Your task to perform on an android device: turn off notifications in google photos Image 0: 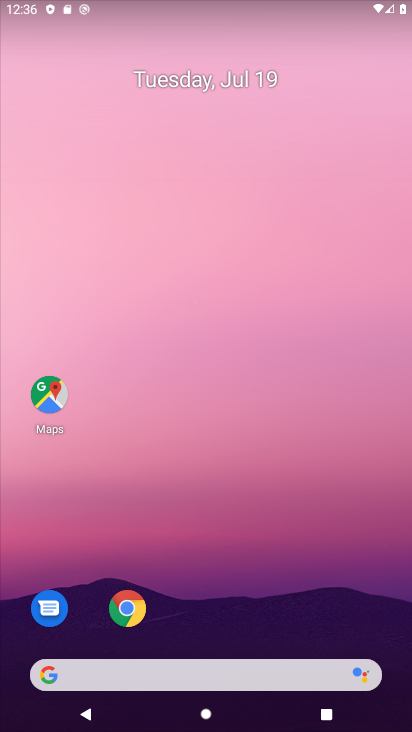
Step 0: drag from (255, 554) to (236, 260)
Your task to perform on an android device: turn off notifications in google photos Image 1: 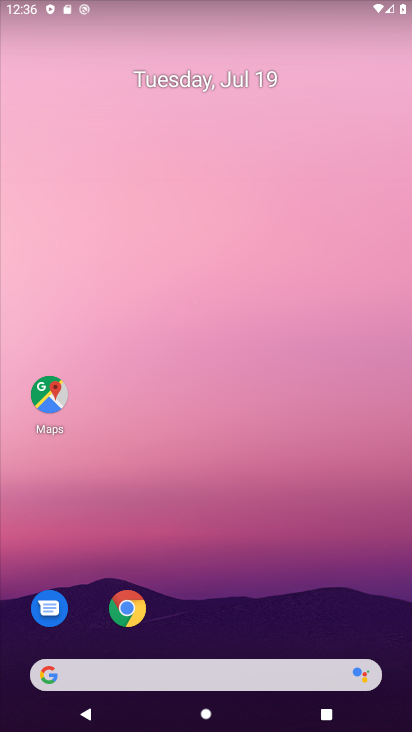
Step 1: drag from (234, 576) to (180, 161)
Your task to perform on an android device: turn off notifications in google photos Image 2: 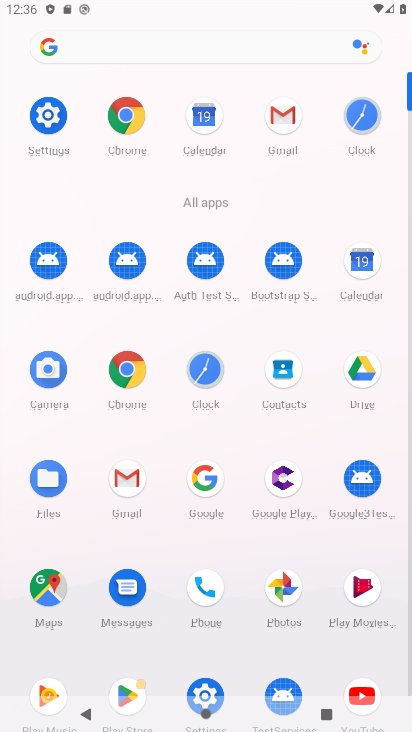
Step 2: click (284, 579)
Your task to perform on an android device: turn off notifications in google photos Image 3: 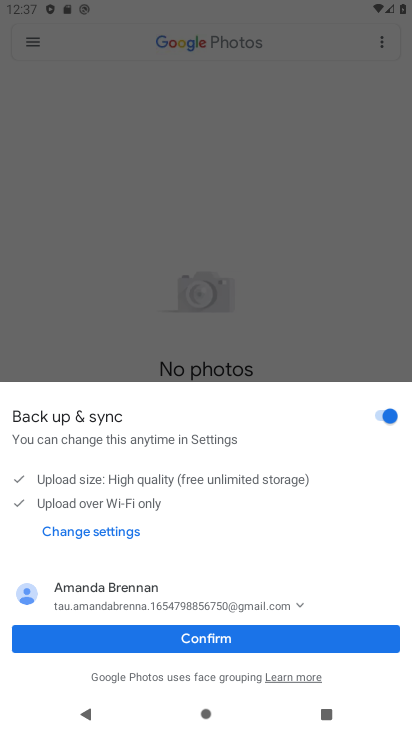
Step 3: task complete